Your task to perform on an android device: Open location settings Image 0: 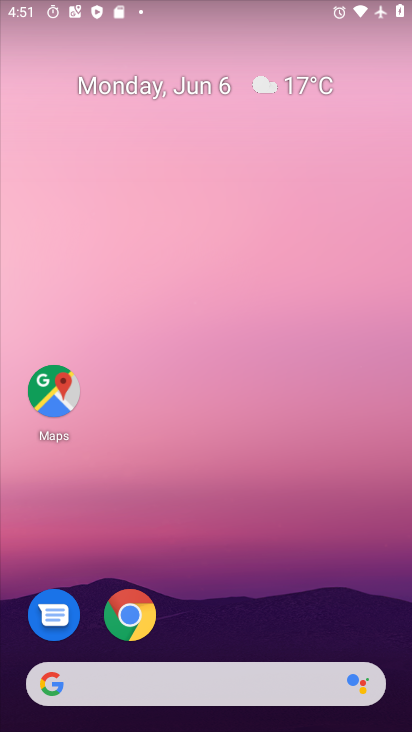
Step 0: drag from (249, 572) to (158, 43)
Your task to perform on an android device: Open location settings Image 1: 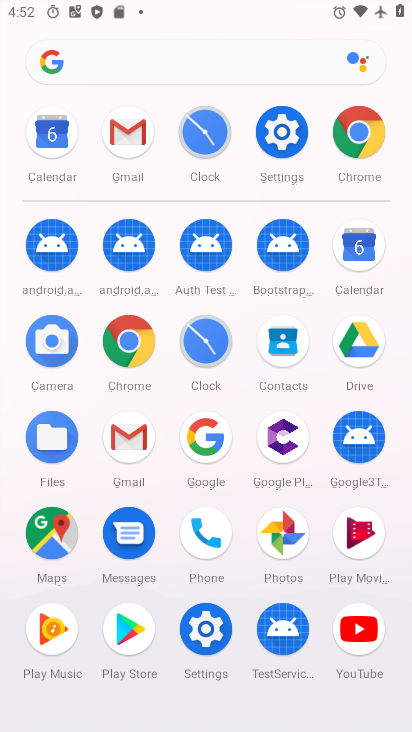
Step 1: drag from (19, 552) to (15, 232)
Your task to perform on an android device: Open location settings Image 2: 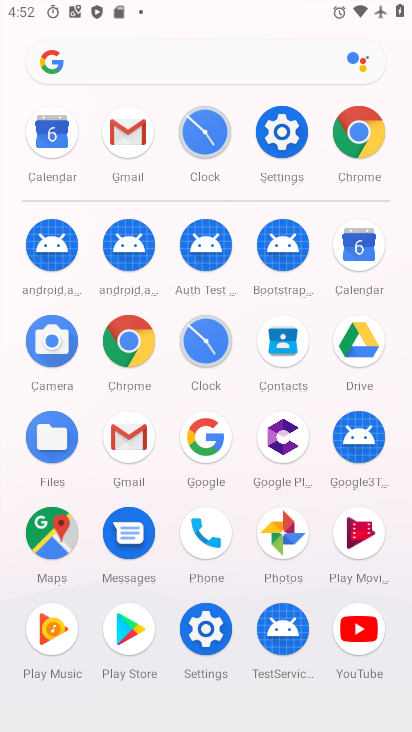
Step 2: click (203, 622)
Your task to perform on an android device: Open location settings Image 3: 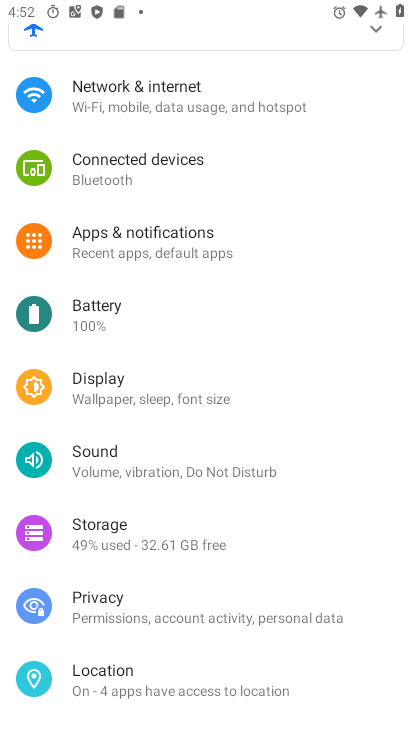
Step 3: drag from (218, 136) to (290, 572)
Your task to perform on an android device: Open location settings Image 4: 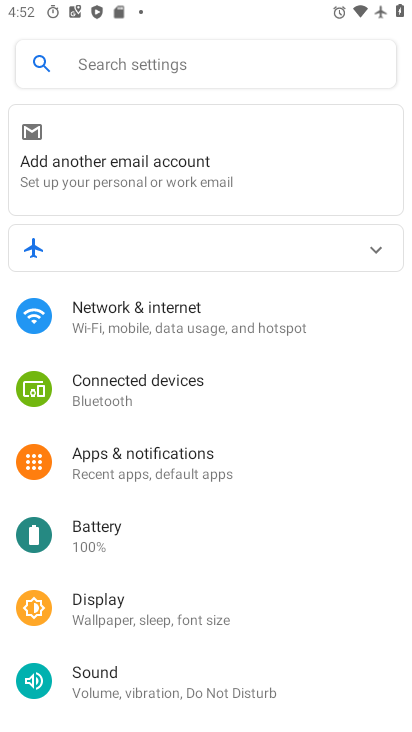
Step 4: drag from (270, 567) to (281, 258)
Your task to perform on an android device: Open location settings Image 5: 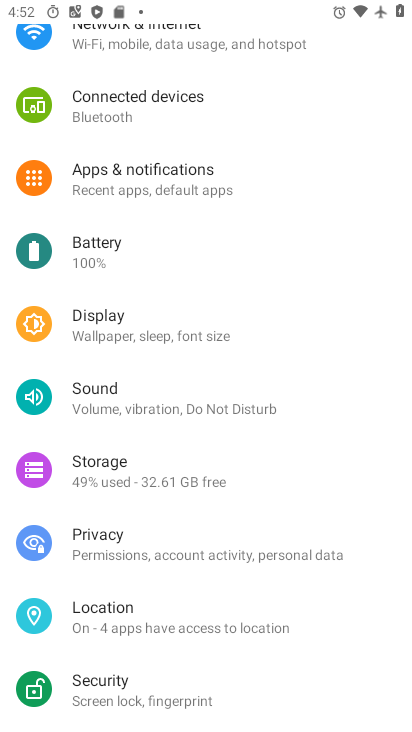
Step 5: click (190, 613)
Your task to perform on an android device: Open location settings Image 6: 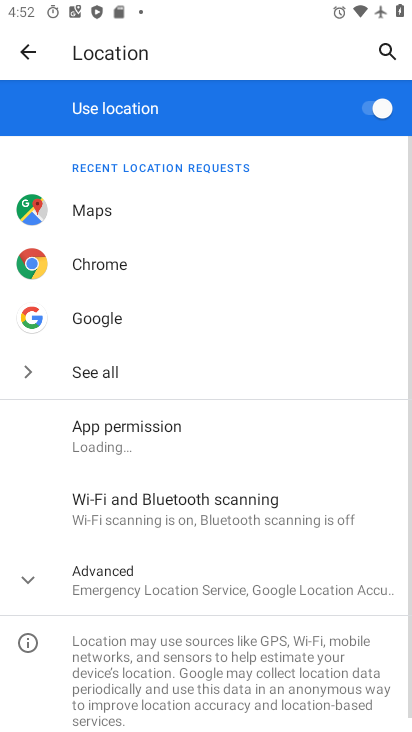
Step 6: click (40, 560)
Your task to perform on an android device: Open location settings Image 7: 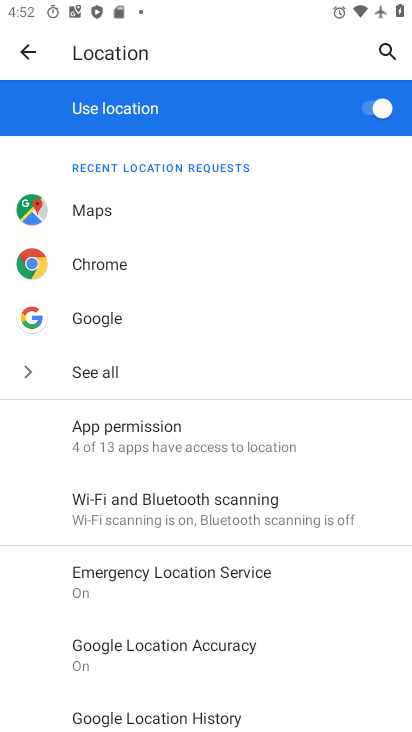
Step 7: task complete